Your task to perform on an android device: Clear the shopping cart on newegg. Add "razer nari" to the cart on newegg, then select checkout. Image 0: 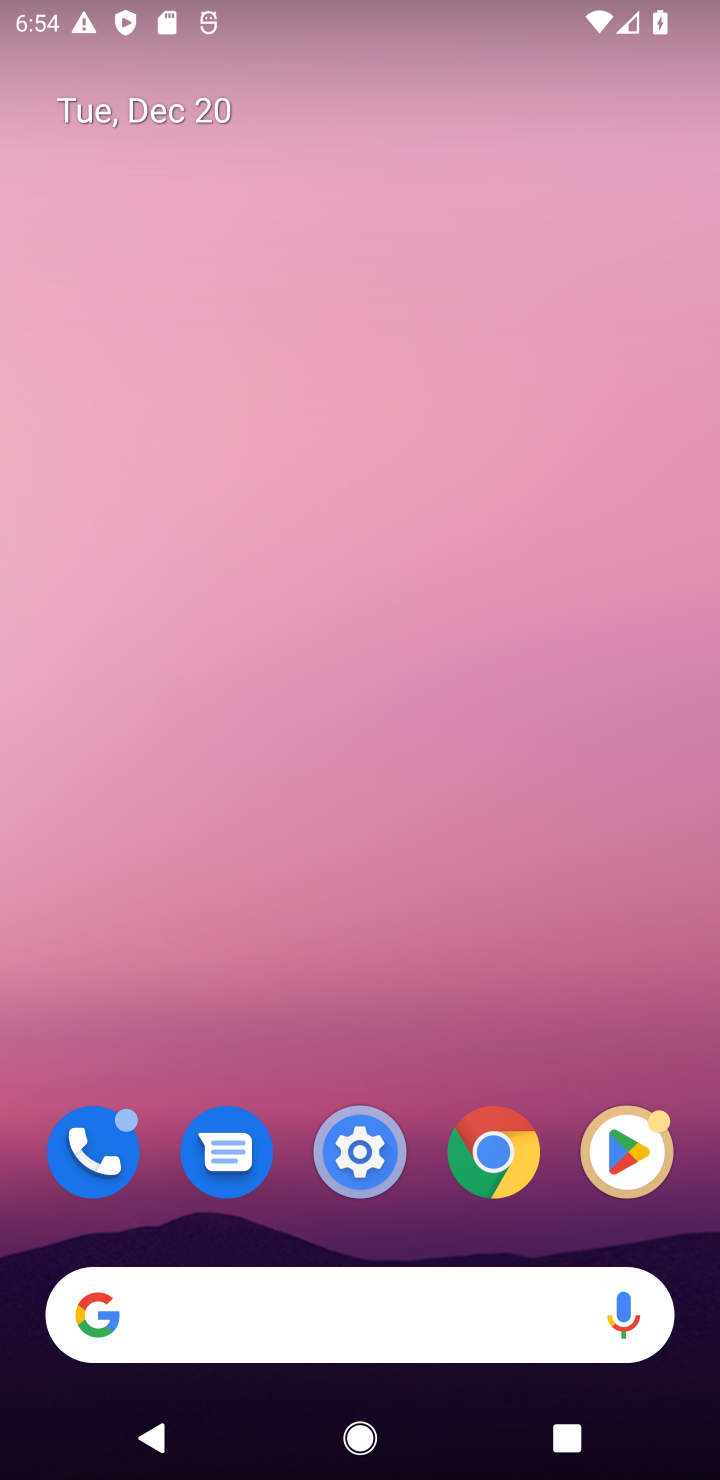
Step 0: click (508, 1134)
Your task to perform on an android device: Clear the shopping cart on newegg. Add "razer nari" to the cart on newegg, then select checkout. Image 1: 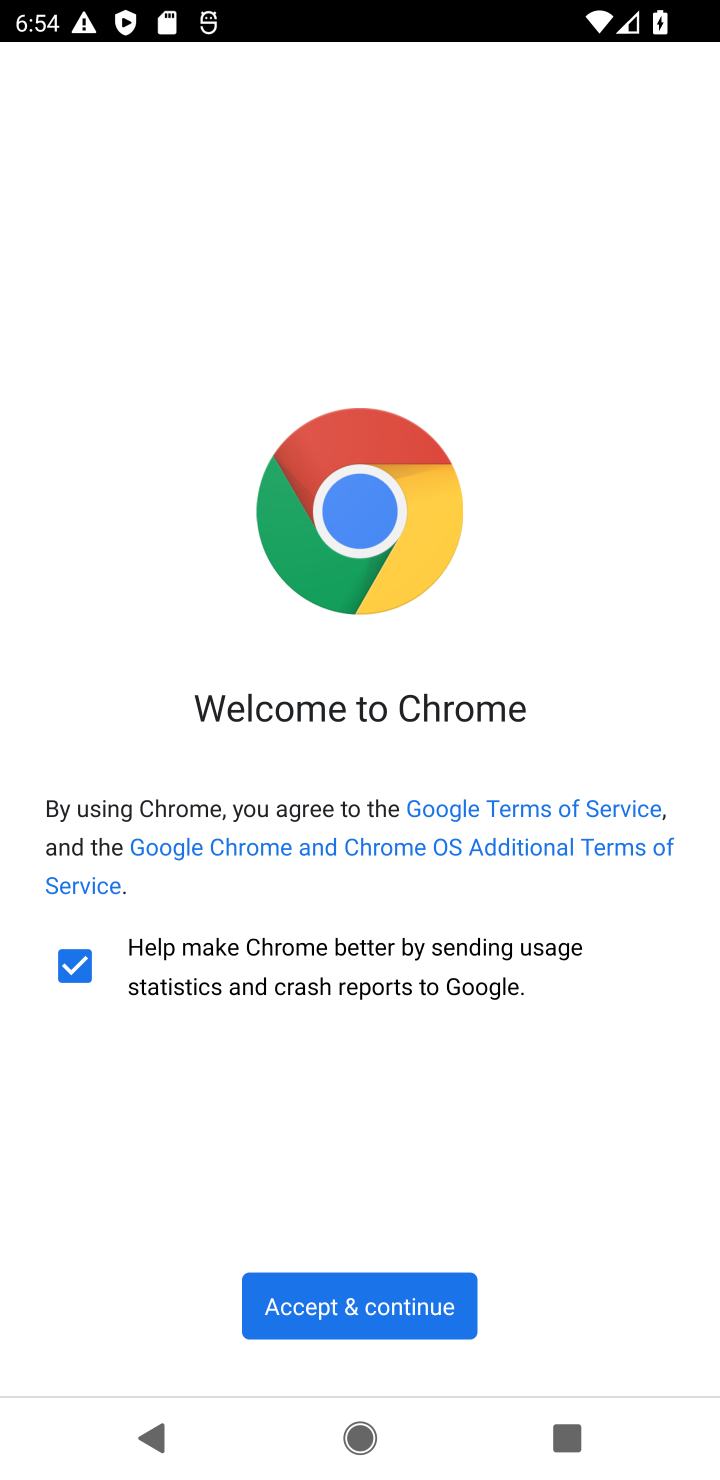
Step 1: click (287, 1303)
Your task to perform on an android device: Clear the shopping cart on newegg. Add "razer nari" to the cart on newegg, then select checkout. Image 2: 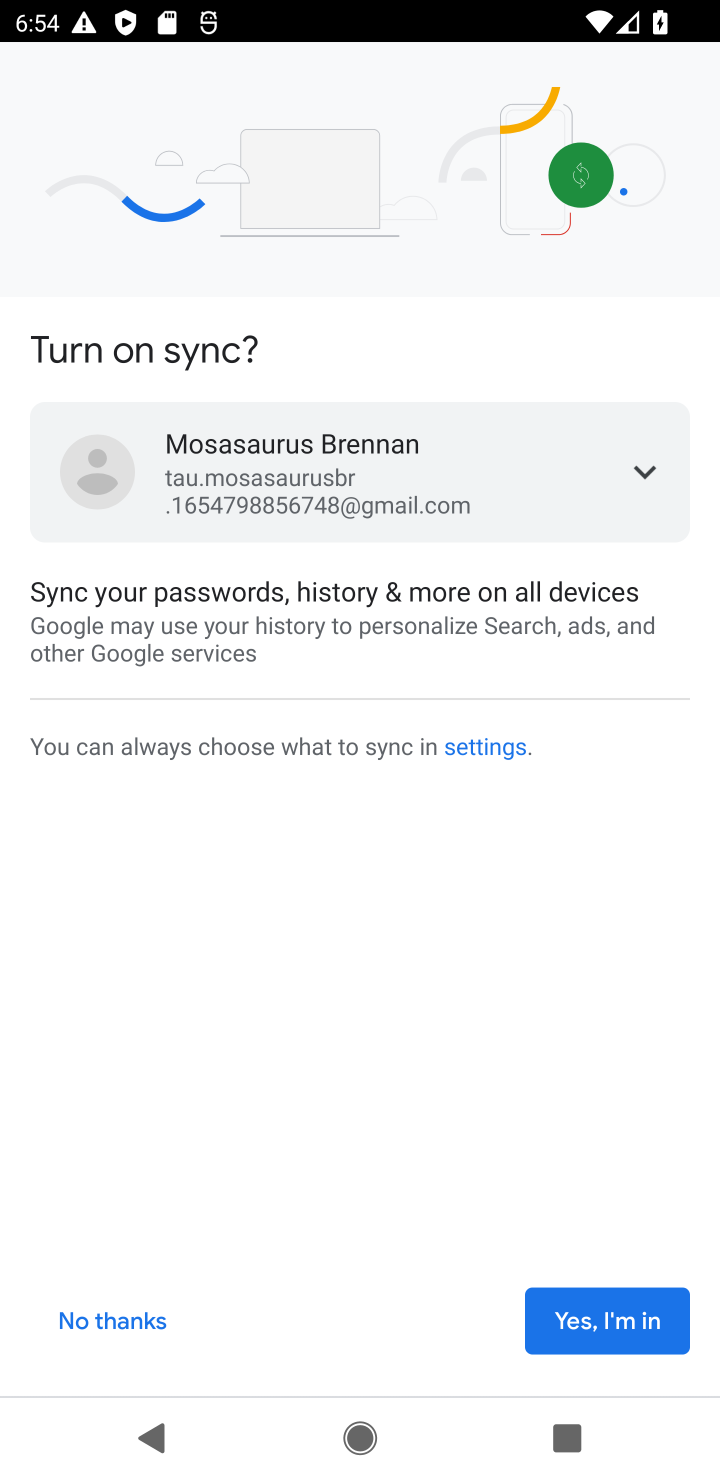
Step 2: click (631, 1313)
Your task to perform on an android device: Clear the shopping cart on newegg. Add "razer nari" to the cart on newegg, then select checkout. Image 3: 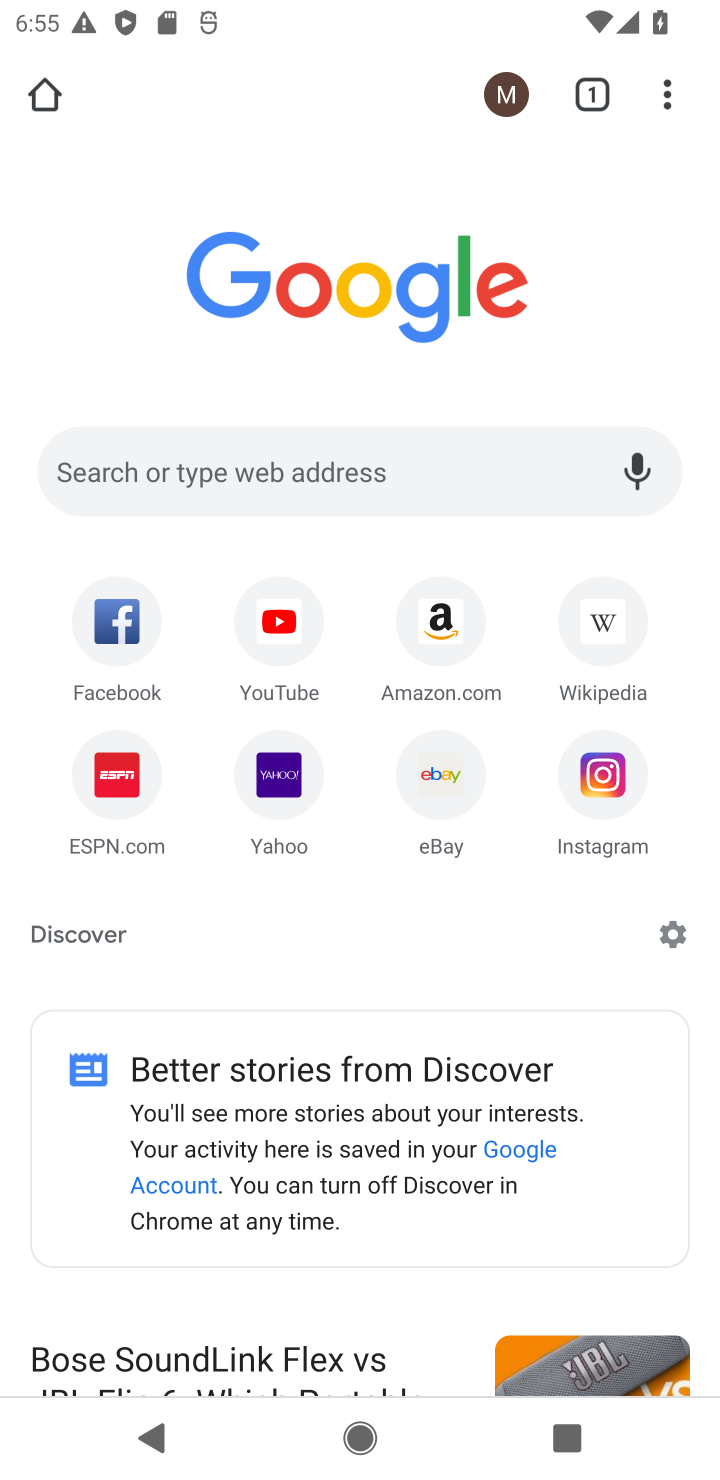
Step 3: click (304, 489)
Your task to perform on an android device: Clear the shopping cart on newegg. Add "razer nari" to the cart on newegg, then select checkout. Image 4: 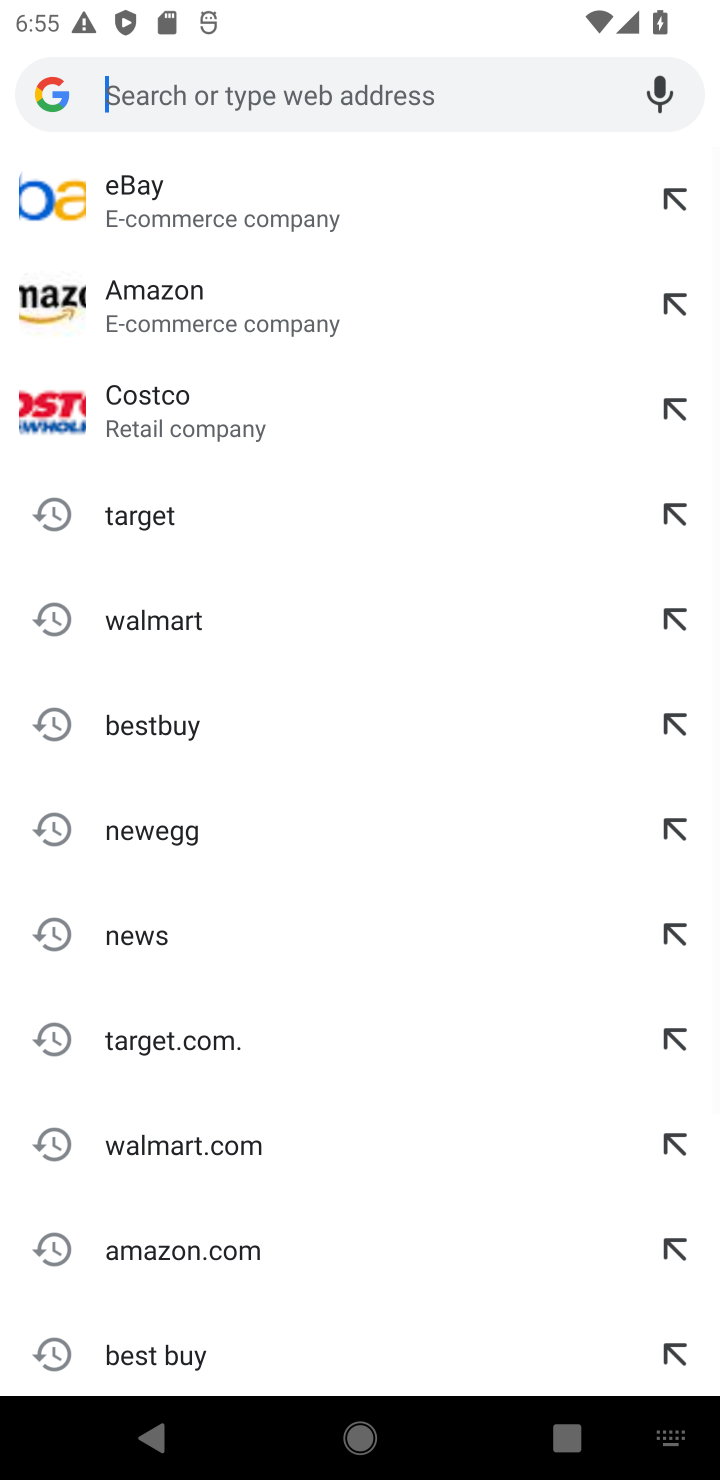
Step 4: click (210, 815)
Your task to perform on an android device: Clear the shopping cart on newegg. Add "razer nari" to the cart on newegg, then select checkout. Image 5: 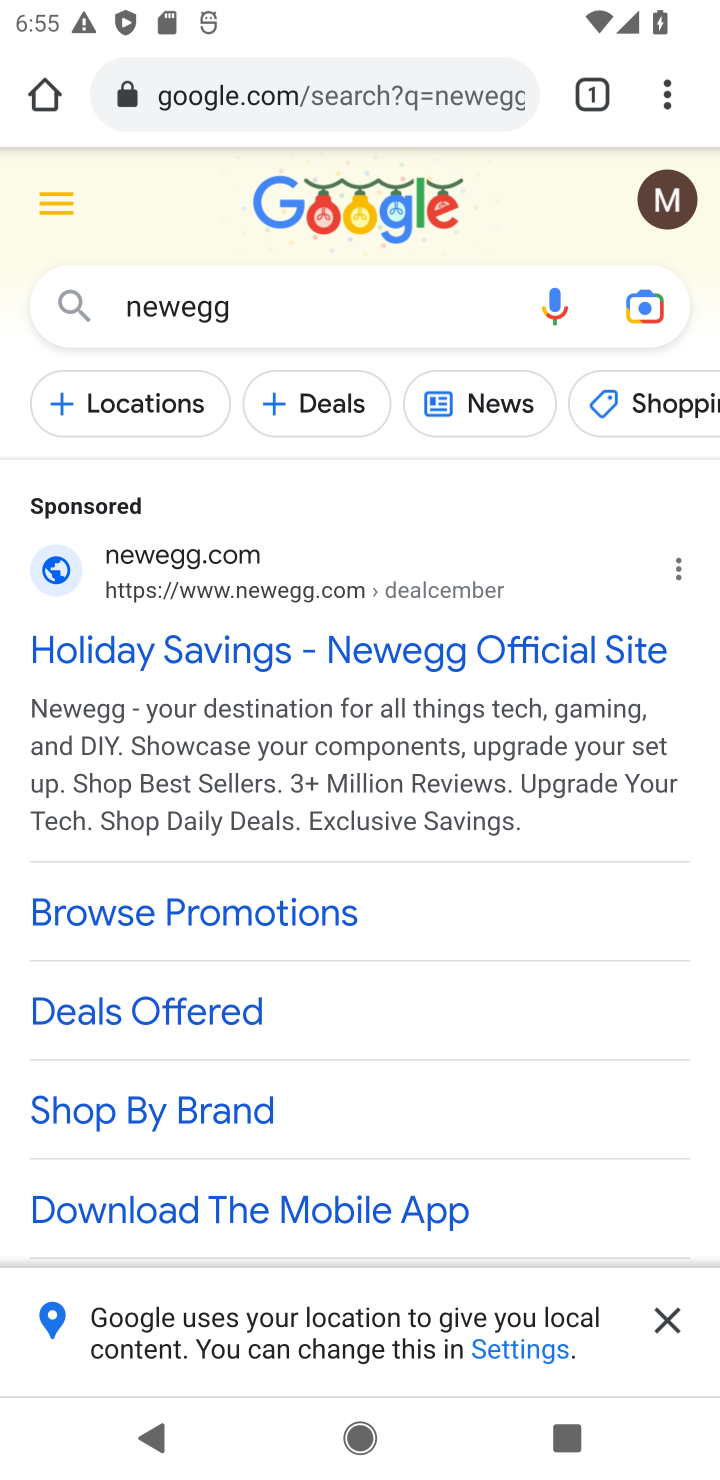
Step 5: click (657, 1319)
Your task to perform on an android device: Clear the shopping cart on newegg. Add "razer nari" to the cart on newegg, then select checkout. Image 6: 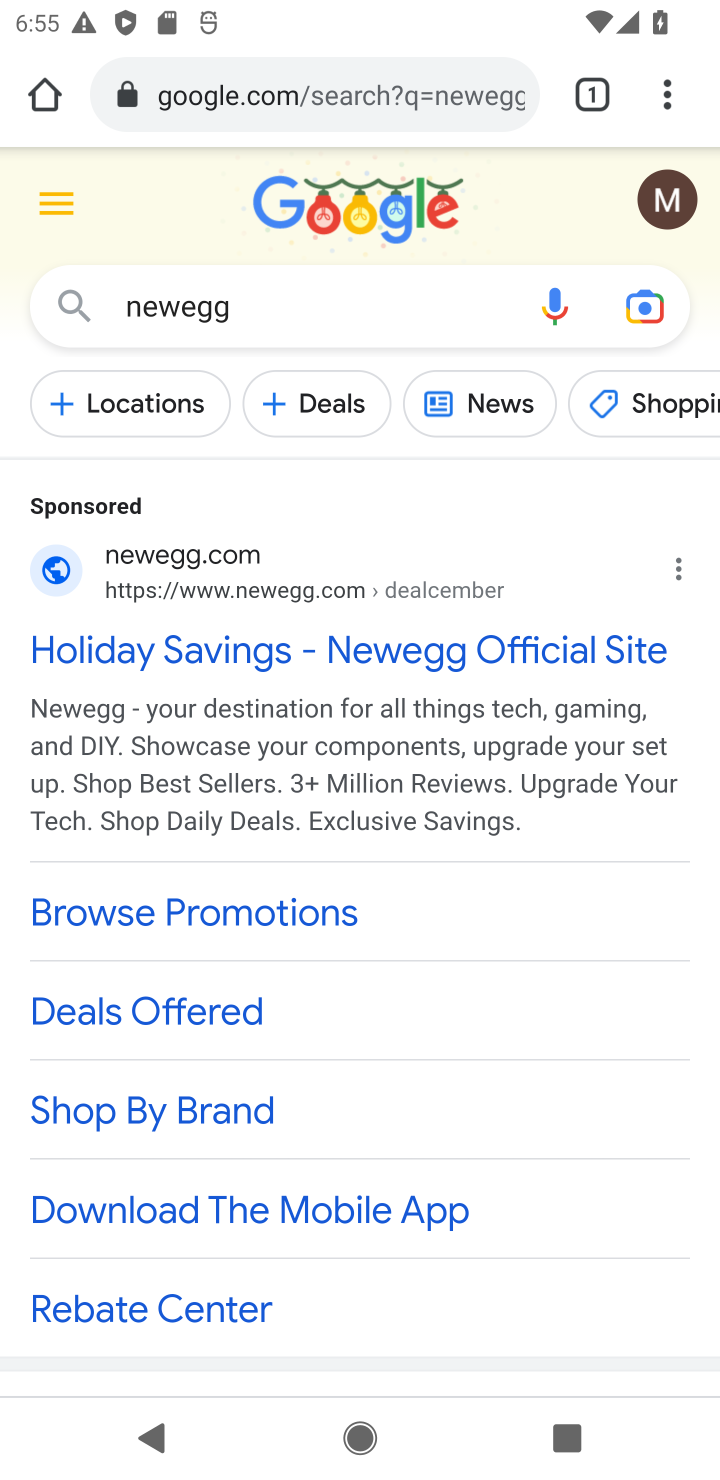
Step 6: drag from (355, 1137) to (519, 649)
Your task to perform on an android device: Clear the shopping cart on newegg. Add "razer nari" to the cart on newegg, then select checkout. Image 7: 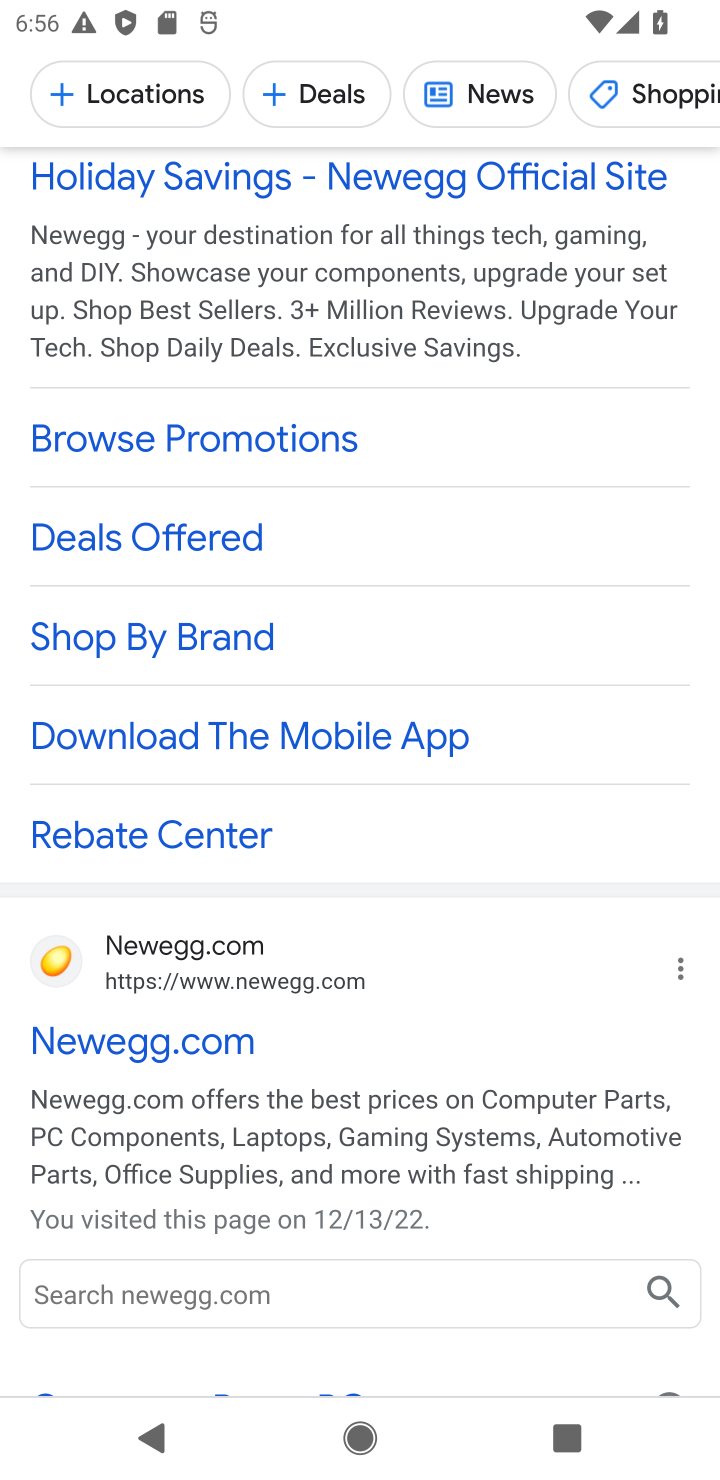
Step 7: click (113, 1059)
Your task to perform on an android device: Clear the shopping cart on newegg. Add "razer nari" to the cart on newegg, then select checkout. Image 8: 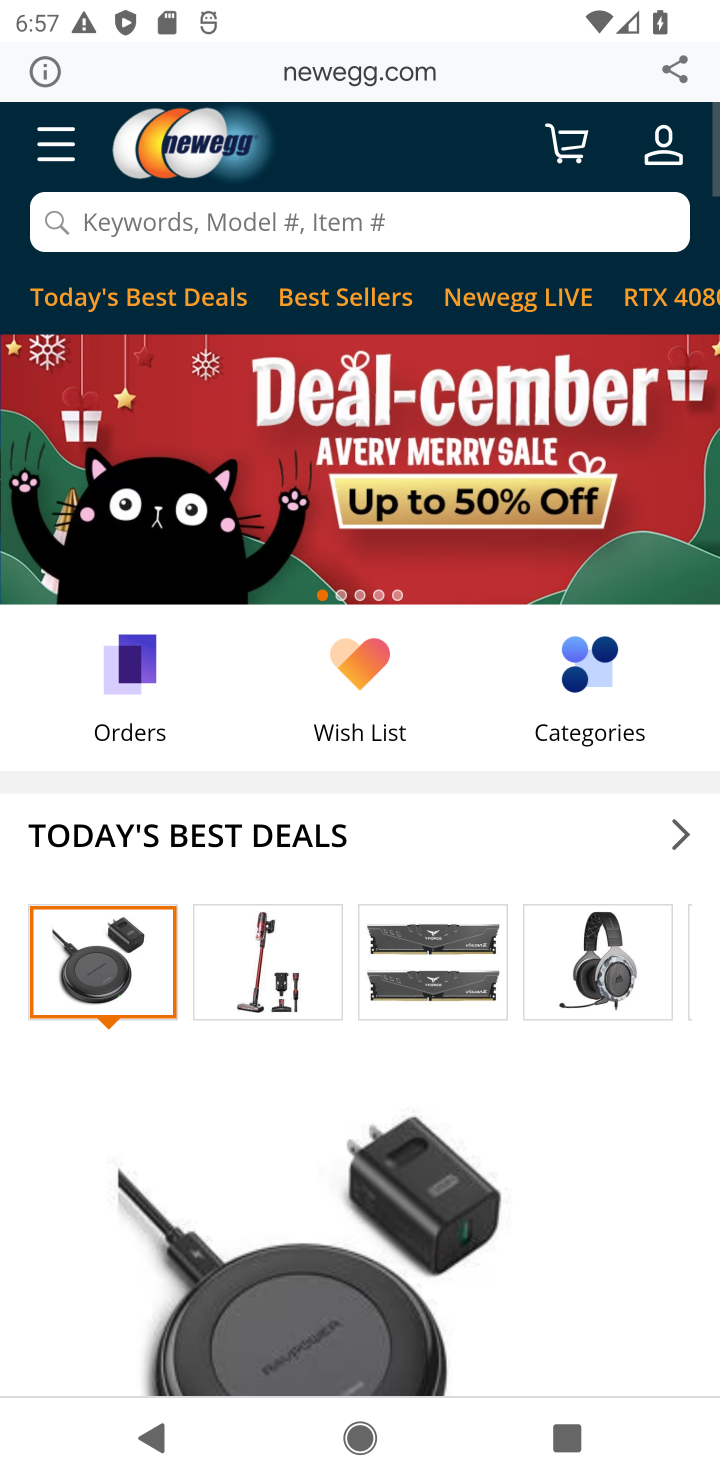
Step 8: click (328, 217)
Your task to perform on an android device: Clear the shopping cart on newegg. Add "razer nari" to the cart on newegg, then select checkout. Image 9: 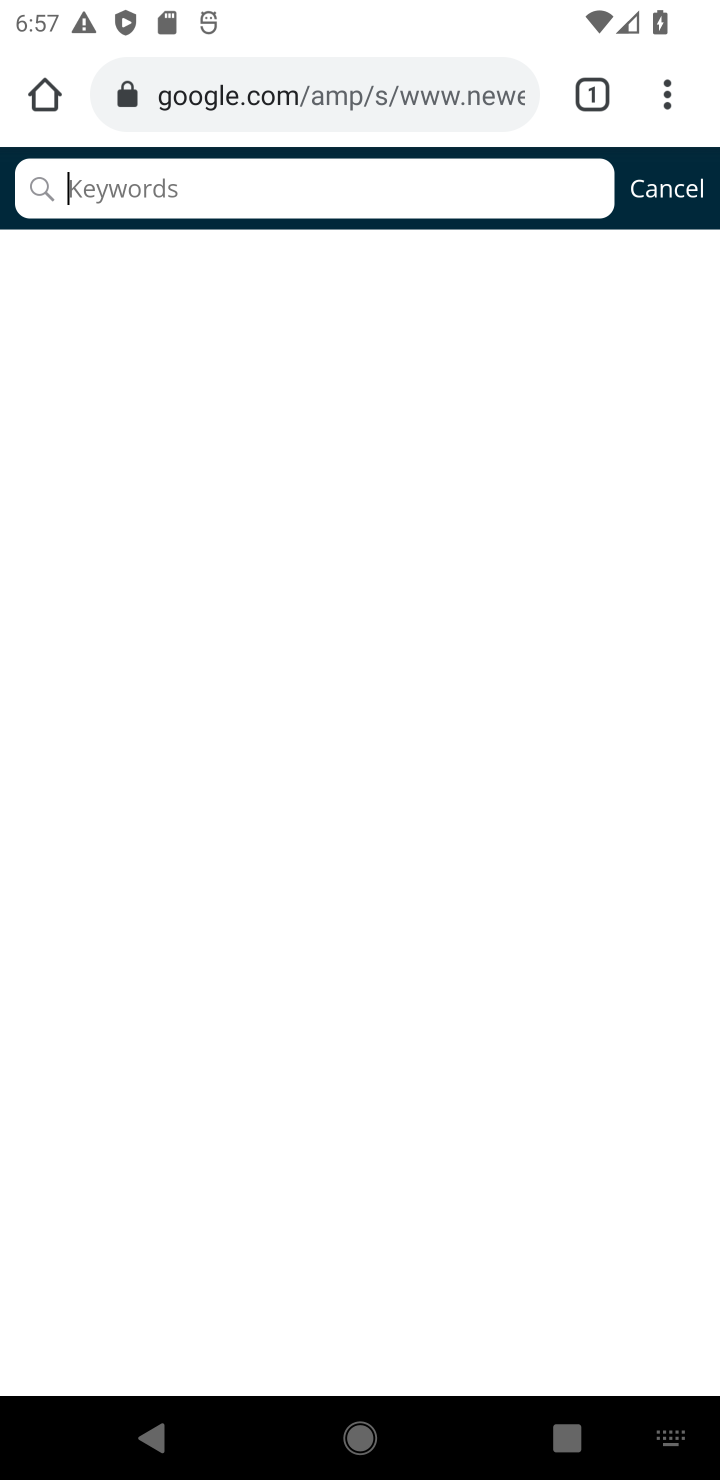
Step 9: type "razer nari"
Your task to perform on an android device: Clear the shopping cart on newegg. Add "razer nari" to the cart on newegg, then select checkout. Image 10: 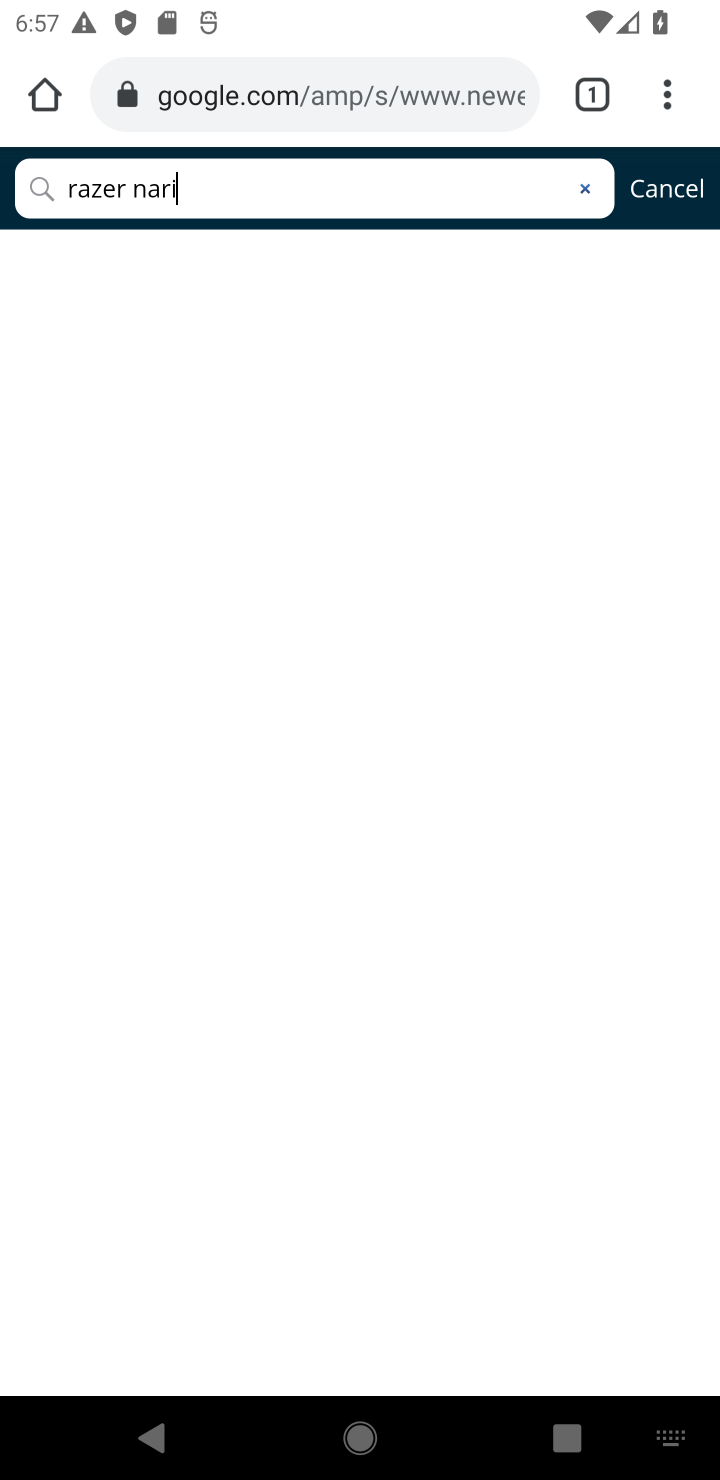
Step 10: press enter
Your task to perform on an android device: Clear the shopping cart on newegg. Add "razer nari" to the cart on newegg, then select checkout. Image 11: 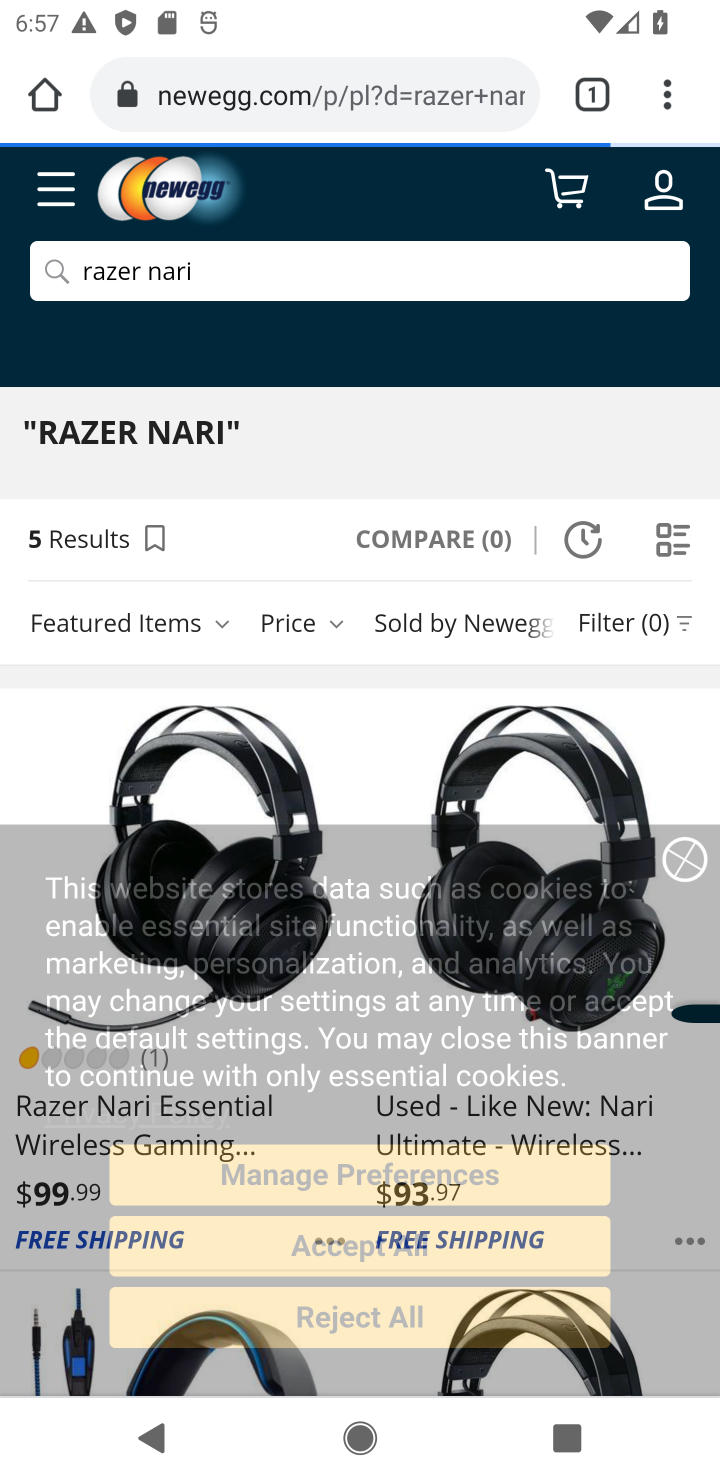
Step 11: click (54, 1102)
Your task to perform on an android device: Clear the shopping cart on newegg. Add "razer nari" to the cart on newegg, then select checkout. Image 12: 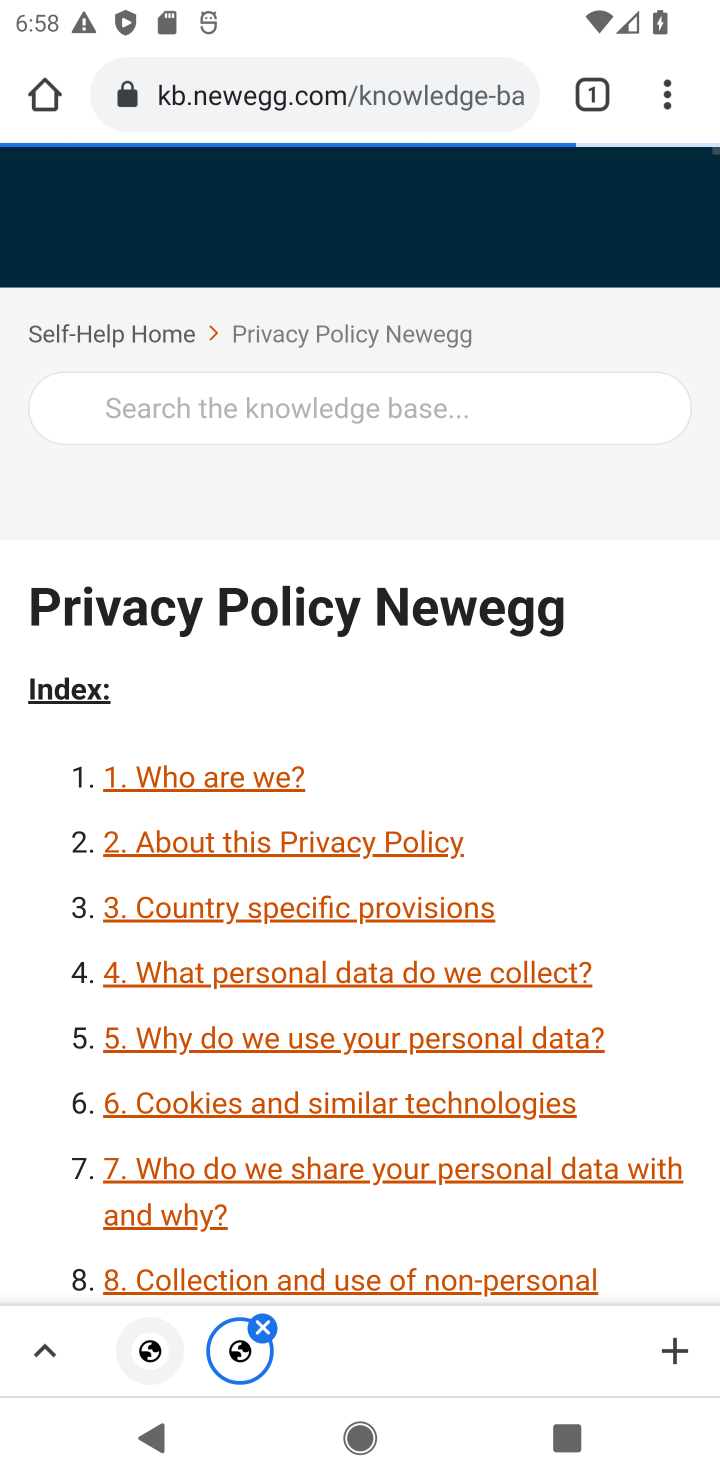
Step 12: click (268, 1328)
Your task to perform on an android device: Clear the shopping cart on newegg. Add "razer nari" to the cart on newegg, then select checkout. Image 13: 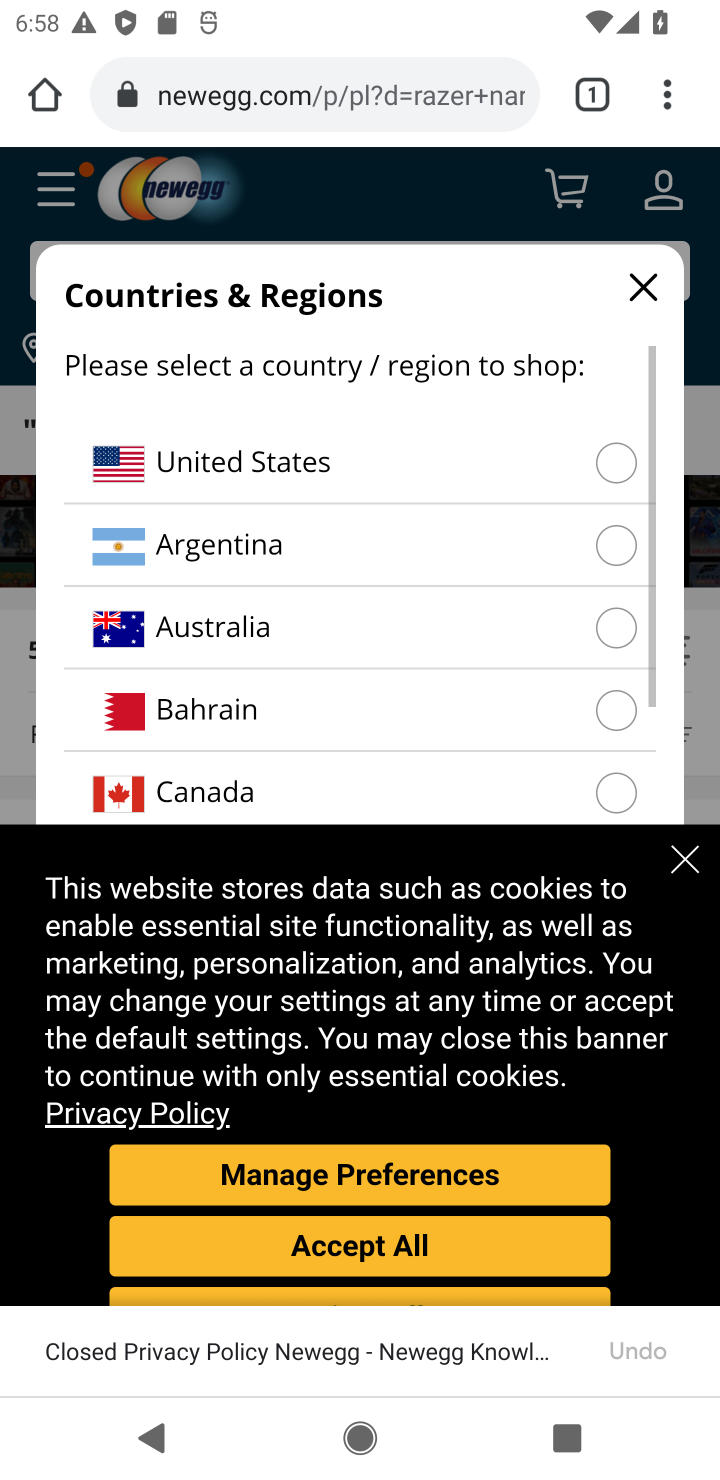
Step 13: click (680, 862)
Your task to perform on an android device: Clear the shopping cart on newegg. Add "razer nari" to the cart on newegg, then select checkout. Image 14: 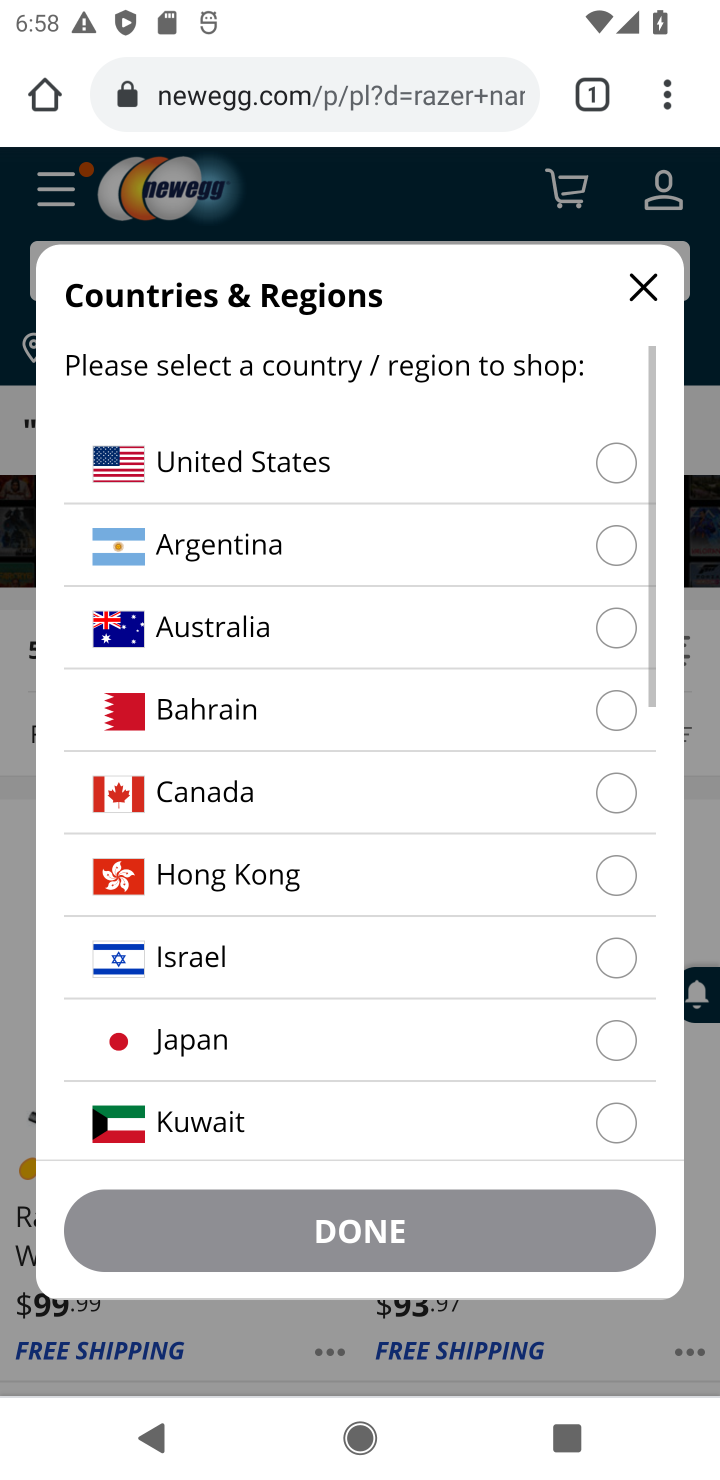
Step 14: click (605, 466)
Your task to perform on an android device: Clear the shopping cart on newegg. Add "razer nari" to the cart on newegg, then select checkout. Image 15: 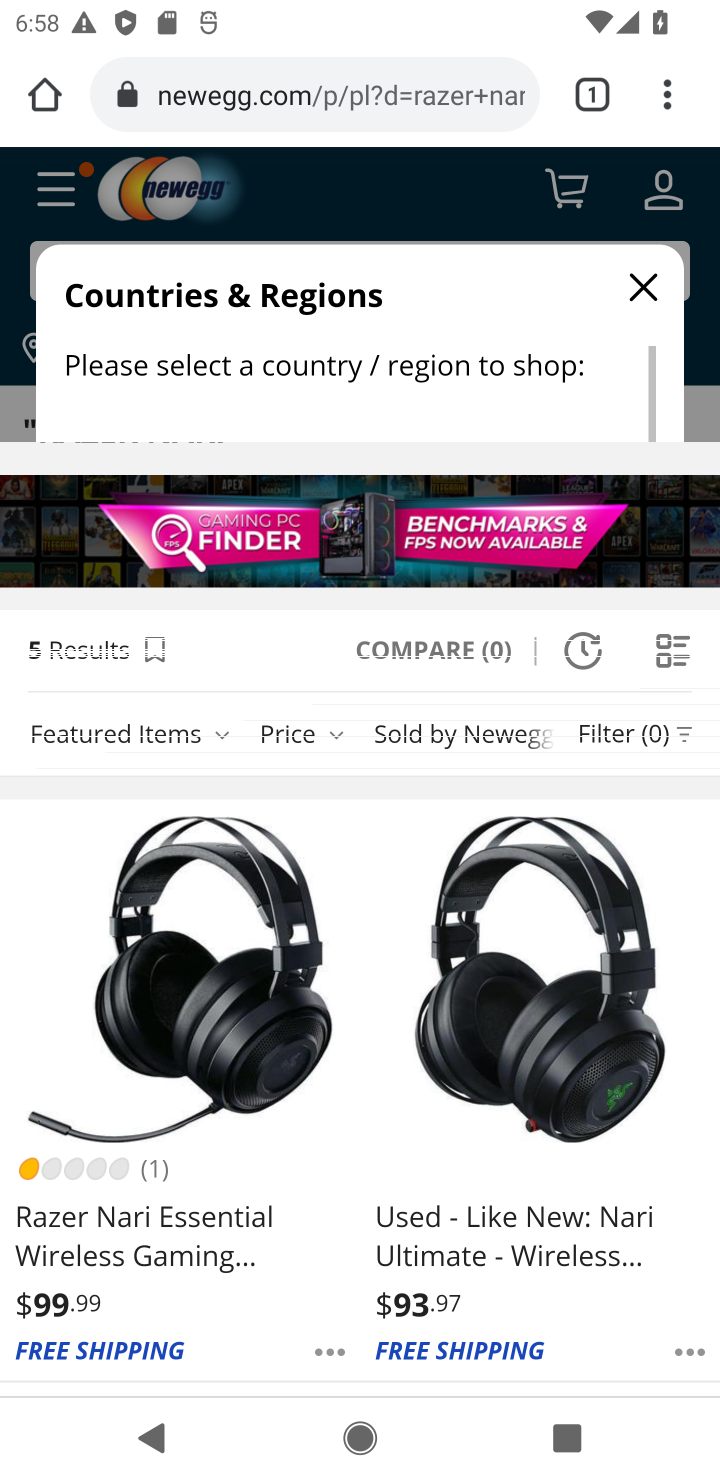
Step 15: click (176, 1215)
Your task to perform on an android device: Clear the shopping cart on newegg. Add "razer nari" to the cart on newegg, then select checkout. Image 16: 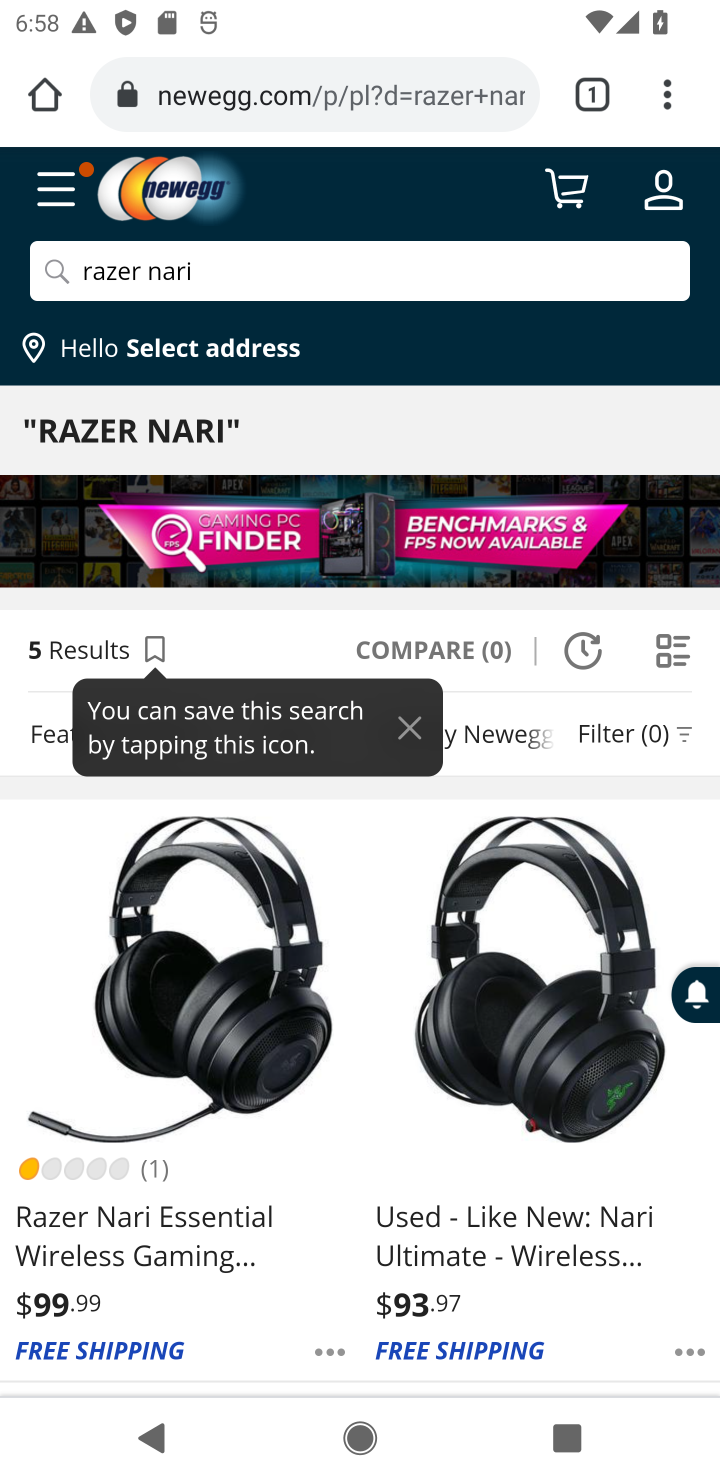
Step 16: click (181, 1060)
Your task to perform on an android device: Clear the shopping cart on newegg. Add "razer nari" to the cart on newegg, then select checkout. Image 17: 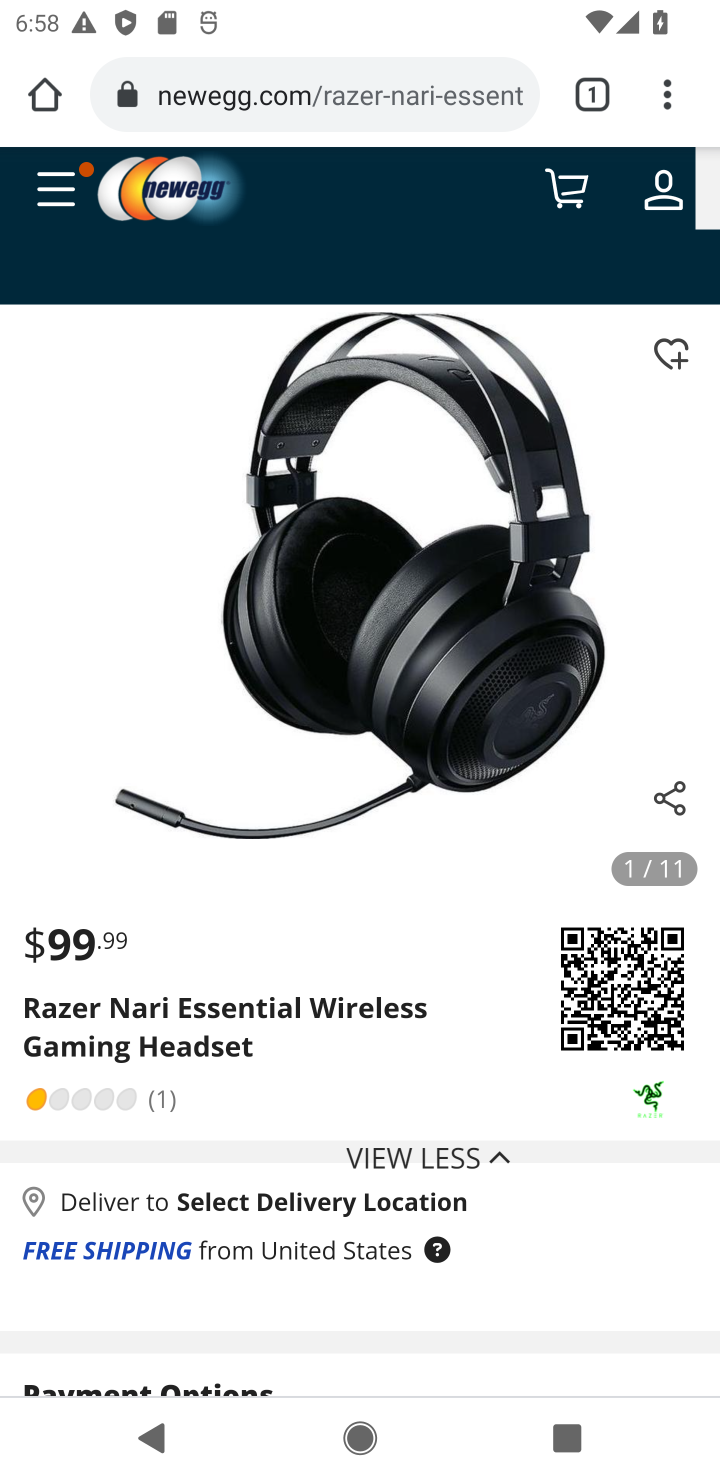
Step 17: click (187, 1230)
Your task to perform on an android device: Clear the shopping cart on newegg. Add "razer nari" to the cart on newegg, then select checkout. Image 18: 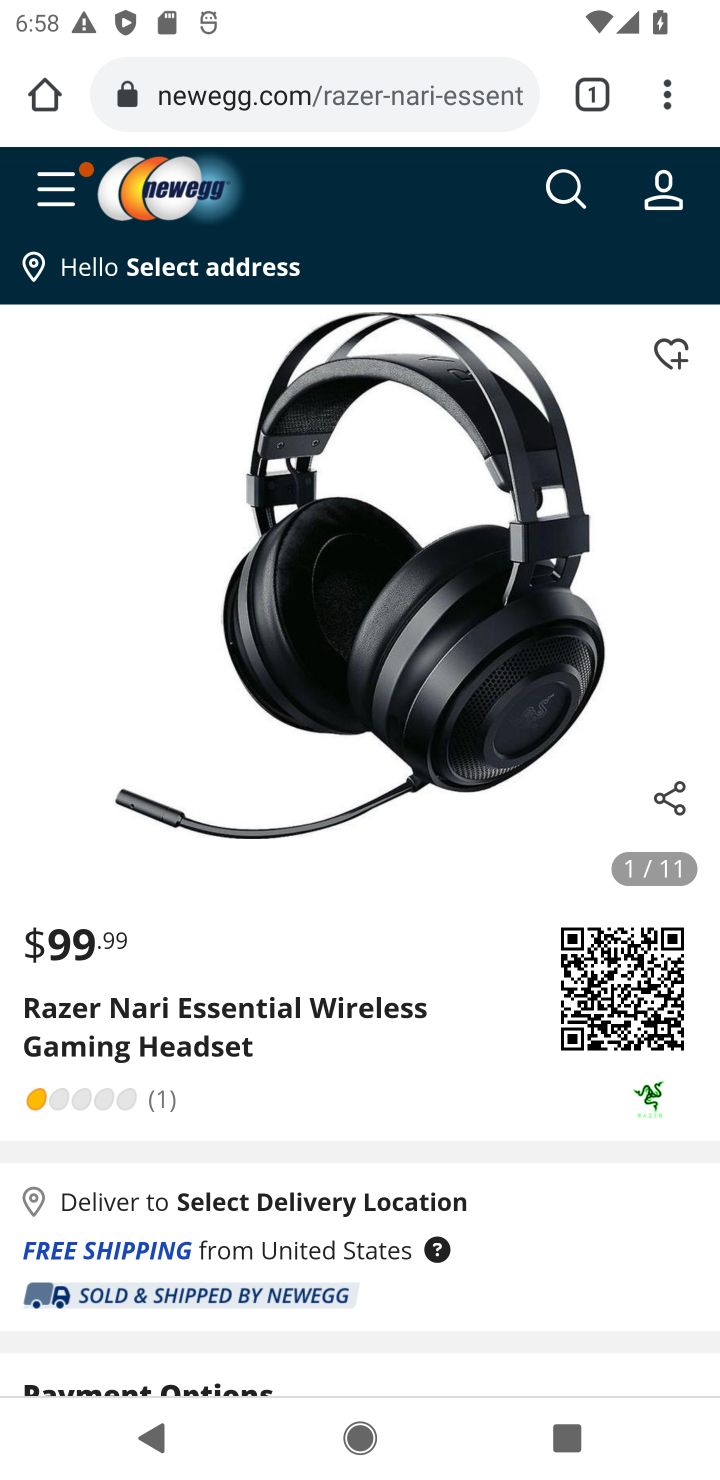
Step 18: click (498, 738)
Your task to perform on an android device: Clear the shopping cart on newegg. Add "razer nari" to the cart on newegg, then select checkout. Image 19: 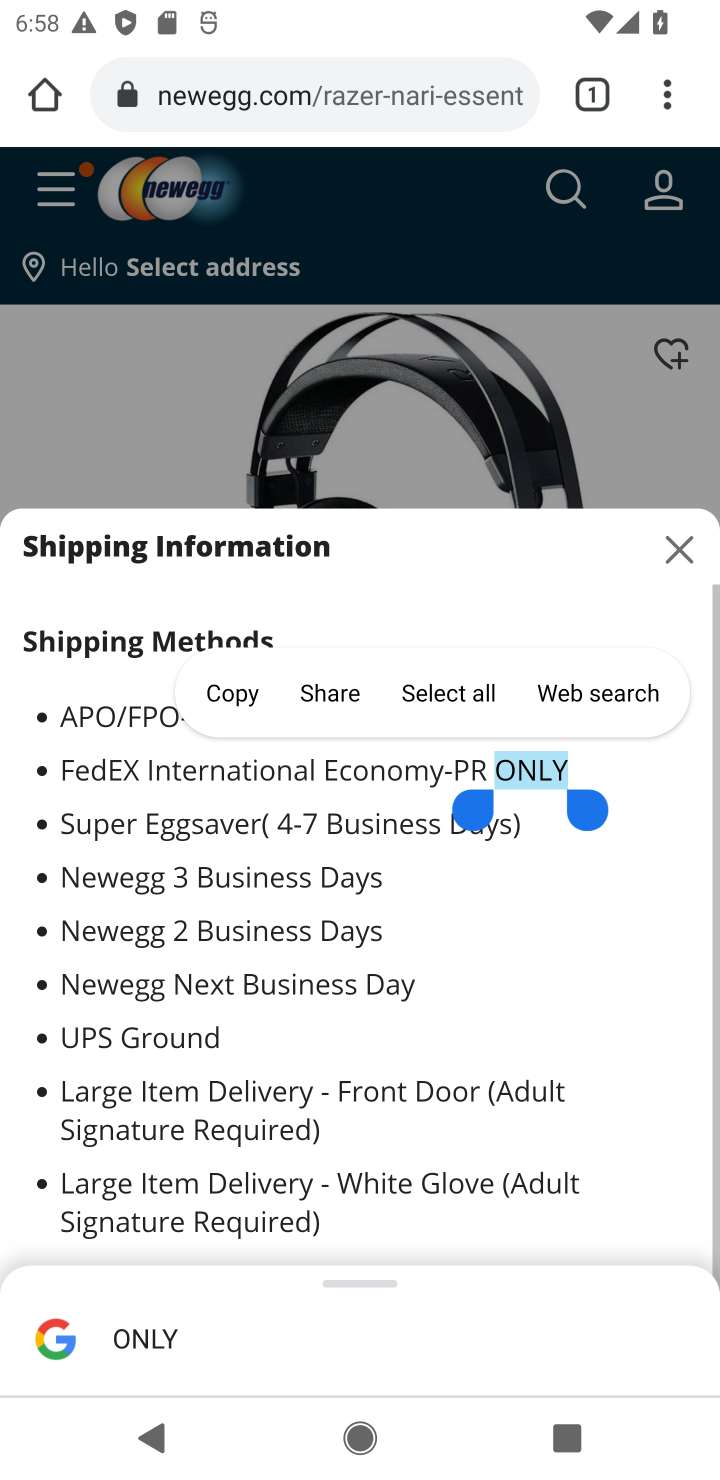
Step 19: click (681, 552)
Your task to perform on an android device: Clear the shopping cart on newegg. Add "razer nari" to the cart on newegg, then select checkout. Image 20: 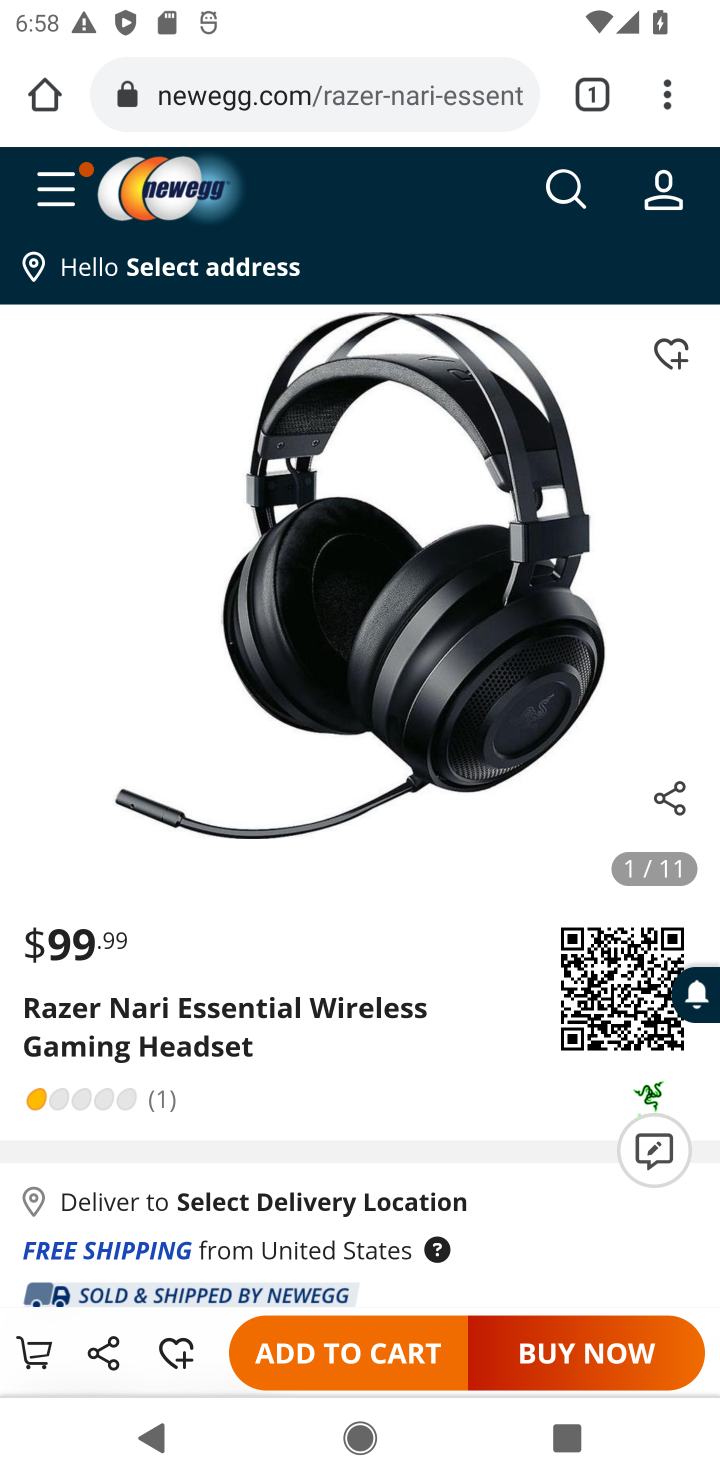
Step 20: click (361, 1337)
Your task to perform on an android device: Clear the shopping cart on newegg. Add "razer nari" to the cart on newegg, then select checkout. Image 21: 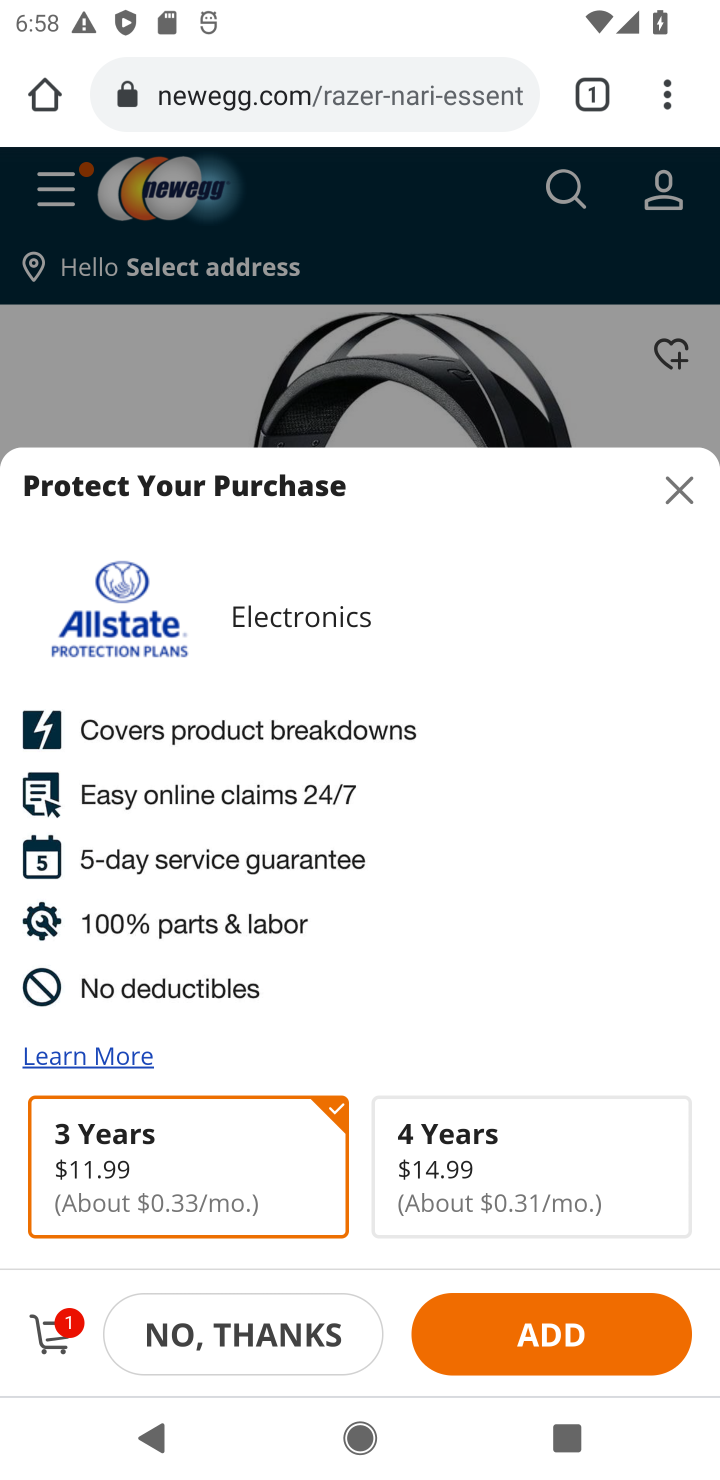
Step 21: task complete